Your task to perform on an android device: change notifications settings Image 0: 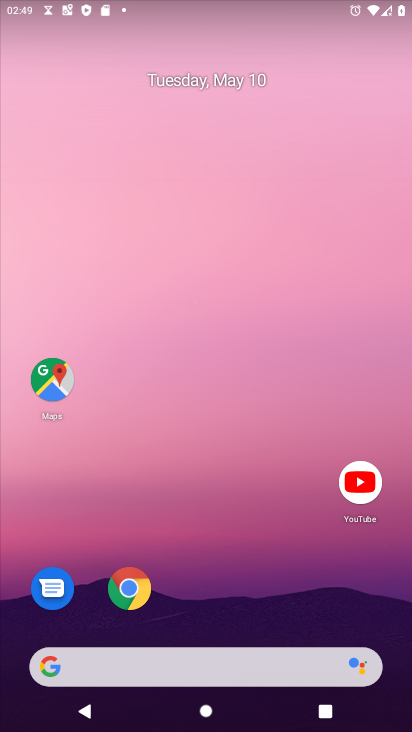
Step 0: drag from (243, 570) to (225, 274)
Your task to perform on an android device: change notifications settings Image 1: 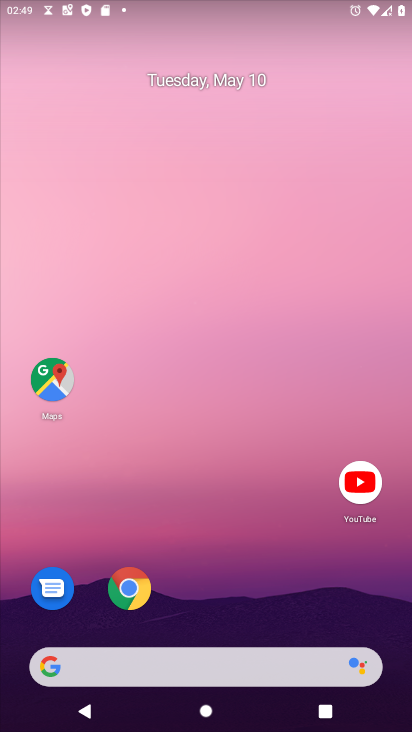
Step 1: drag from (195, 606) to (205, 356)
Your task to perform on an android device: change notifications settings Image 2: 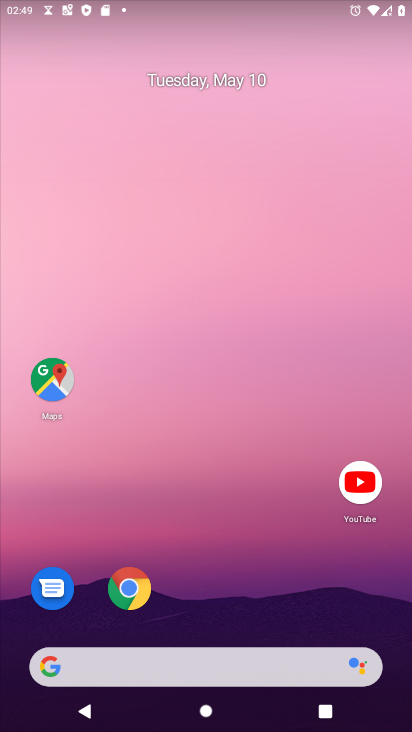
Step 2: drag from (203, 591) to (230, 162)
Your task to perform on an android device: change notifications settings Image 3: 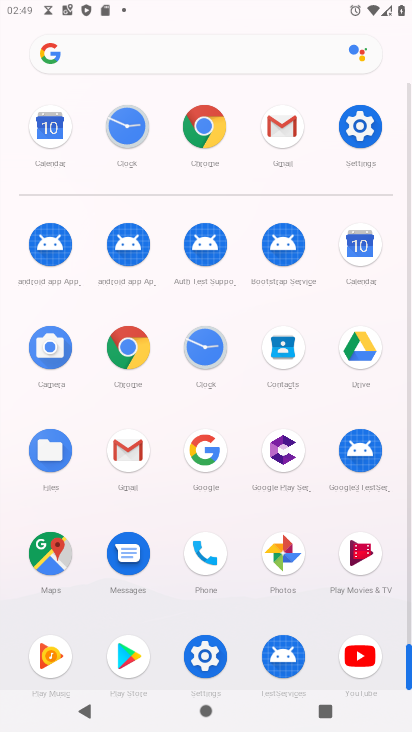
Step 3: click (362, 114)
Your task to perform on an android device: change notifications settings Image 4: 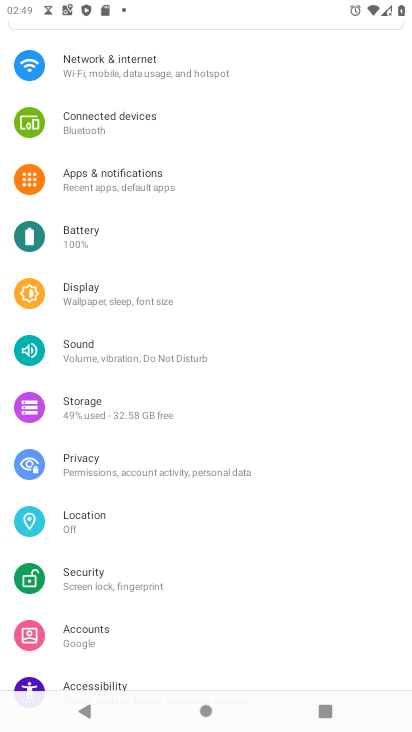
Step 4: click (156, 179)
Your task to perform on an android device: change notifications settings Image 5: 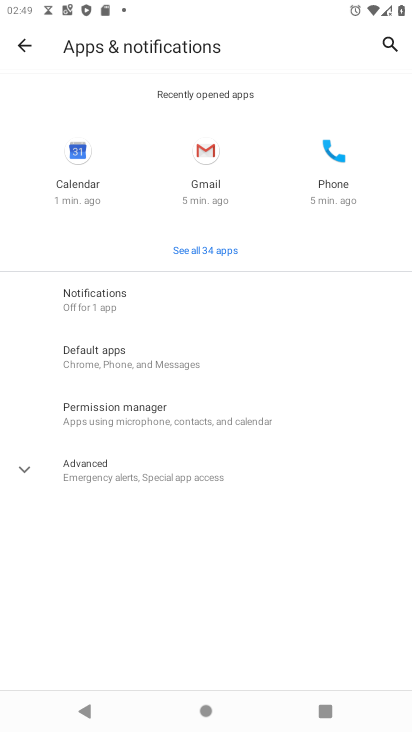
Step 5: click (141, 285)
Your task to perform on an android device: change notifications settings Image 6: 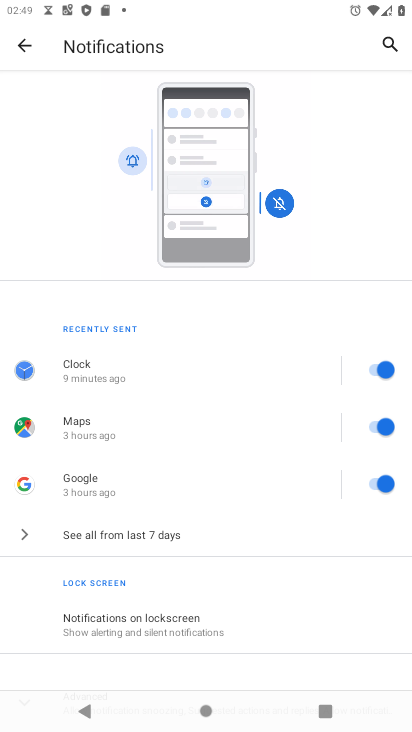
Step 6: click (156, 625)
Your task to perform on an android device: change notifications settings Image 7: 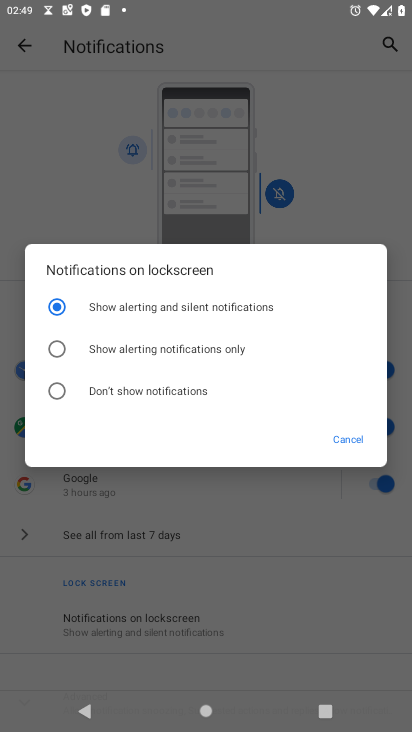
Step 7: click (352, 438)
Your task to perform on an android device: change notifications settings Image 8: 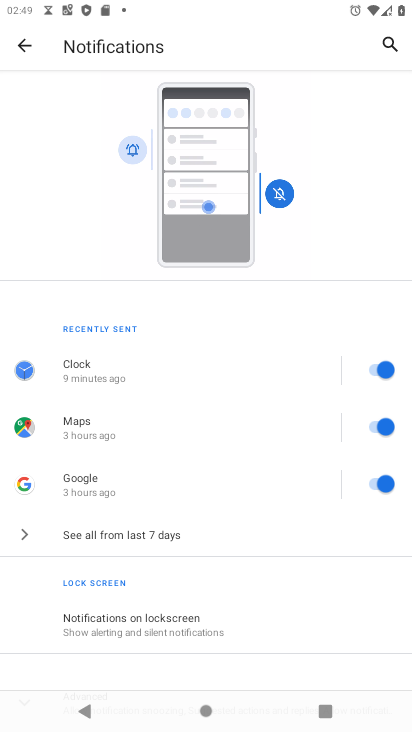
Step 8: click (82, 532)
Your task to perform on an android device: change notifications settings Image 9: 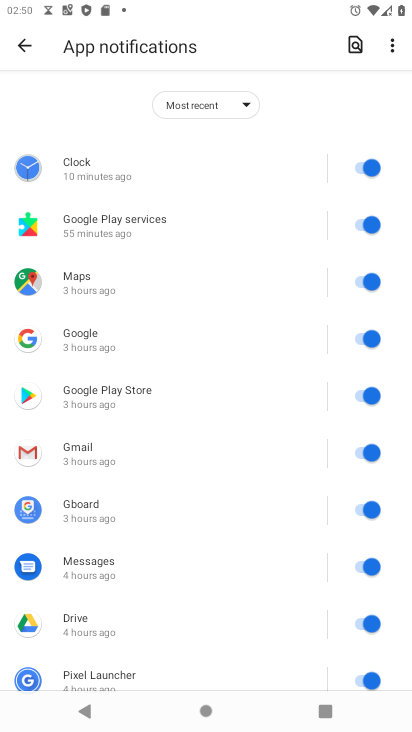
Step 9: click (349, 162)
Your task to perform on an android device: change notifications settings Image 10: 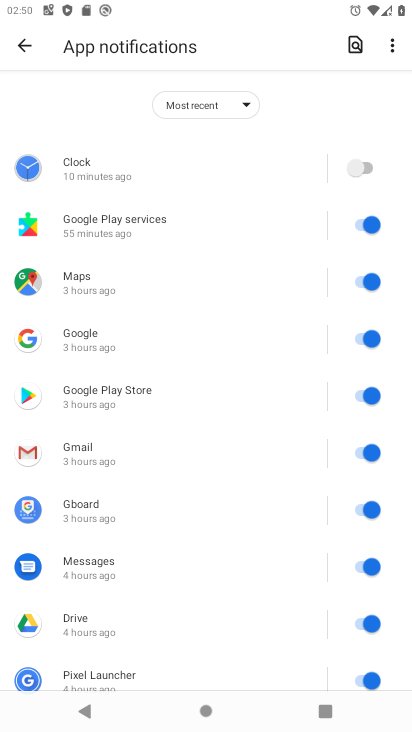
Step 10: click (359, 212)
Your task to perform on an android device: change notifications settings Image 11: 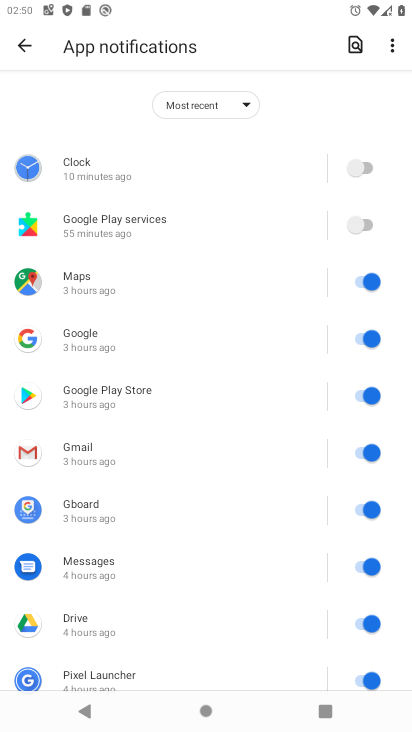
Step 11: click (358, 275)
Your task to perform on an android device: change notifications settings Image 12: 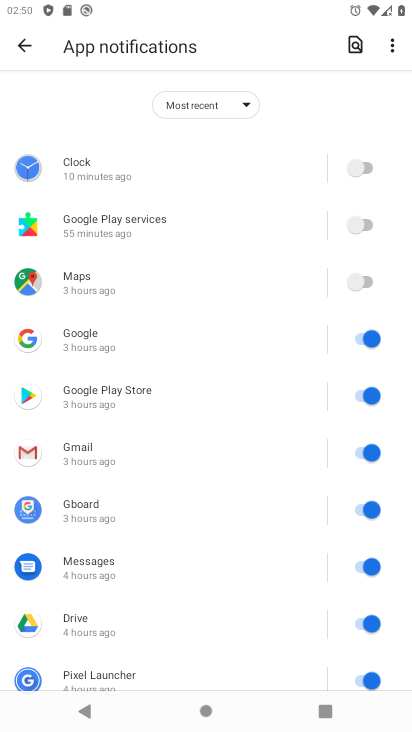
Step 12: click (359, 338)
Your task to perform on an android device: change notifications settings Image 13: 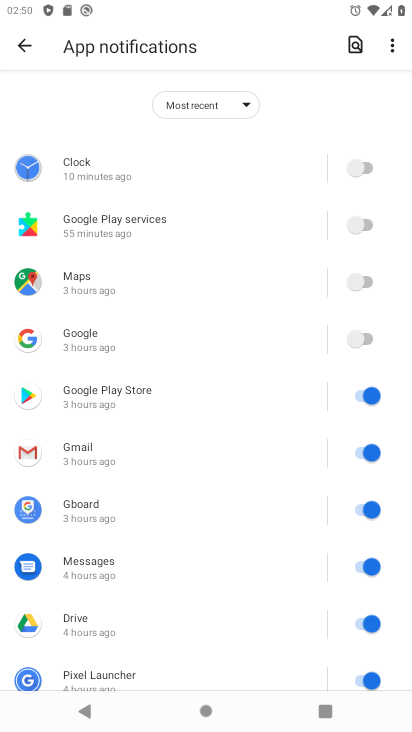
Step 13: click (372, 404)
Your task to perform on an android device: change notifications settings Image 14: 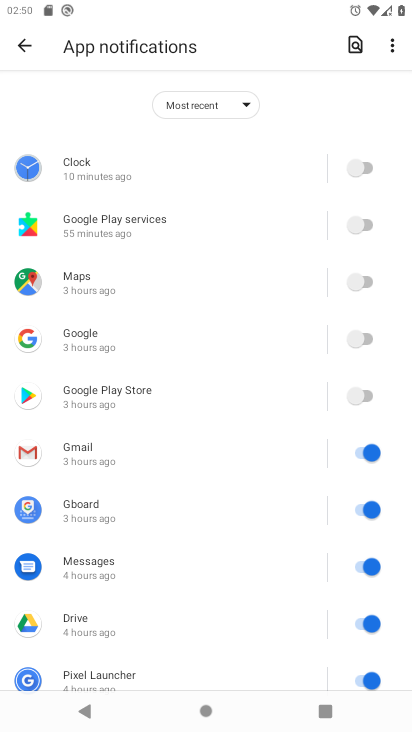
Step 14: click (368, 401)
Your task to perform on an android device: change notifications settings Image 15: 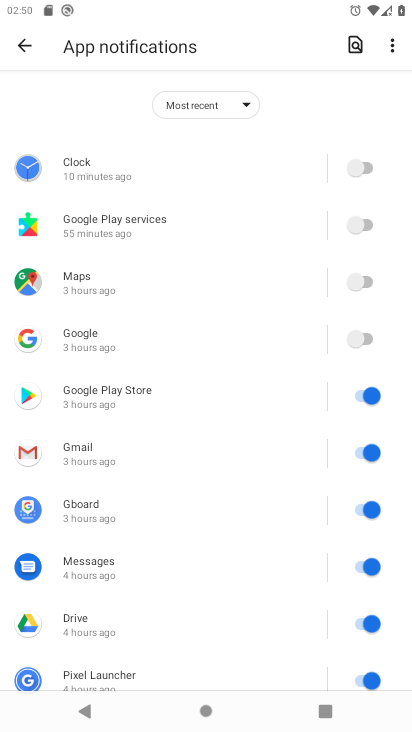
Step 15: click (357, 450)
Your task to perform on an android device: change notifications settings Image 16: 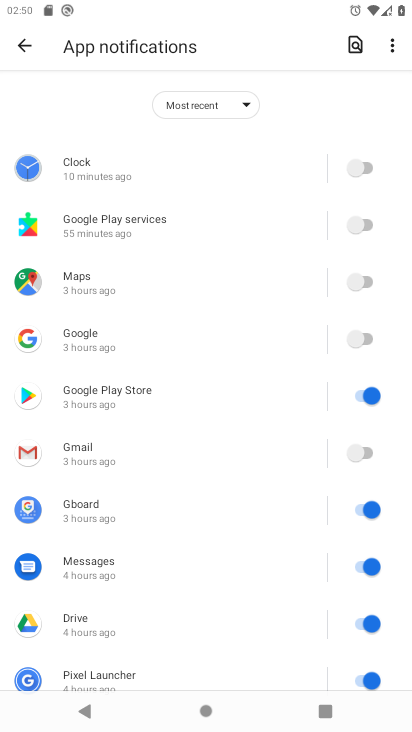
Step 16: click (361, 516)
Your task to perform on an android device: change notifications settings Image 17: 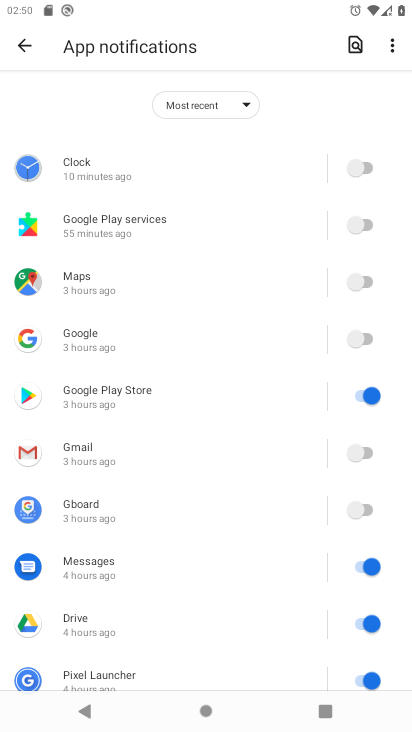
Step 17: click (368, 396)
Your task to perform on an android device: change notifications settings Image 18: 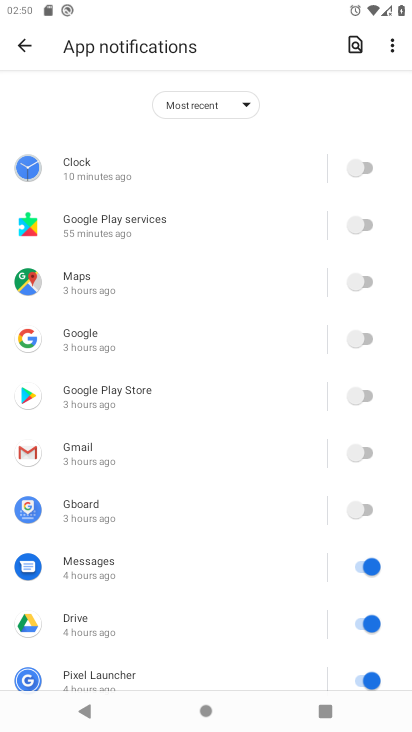
Step 18: click (354, 572)
Your task to perform on an android device: change notifications settings Image 19: 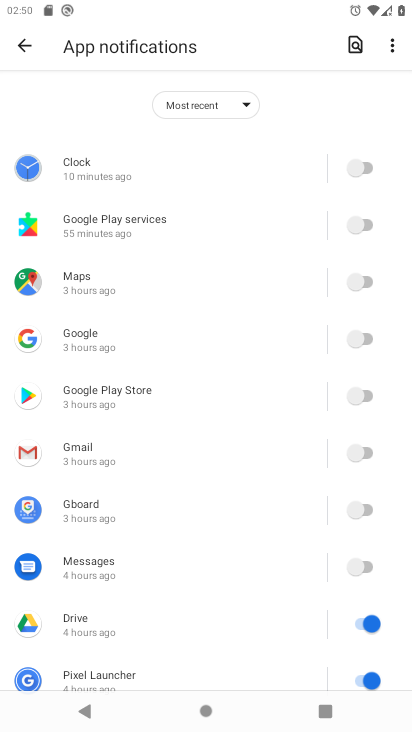
Step 19: drag from (252, 452) to (268, 91)
Your task to perform on an android device: change notifications settings Image 20: 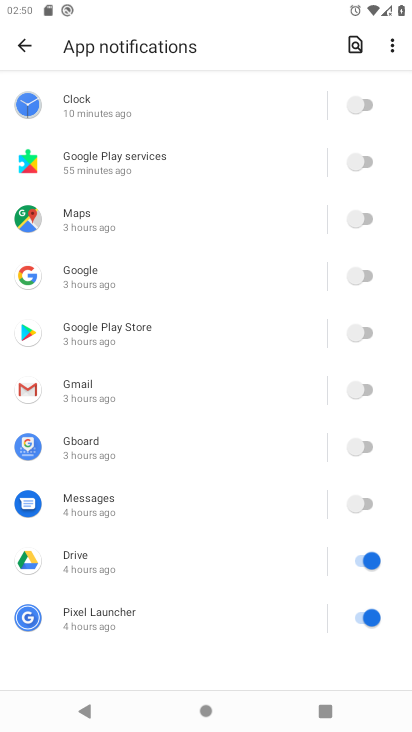
Step 20: click (351, 558)
Your task to perform on an android device: change notifications settings Image 21: 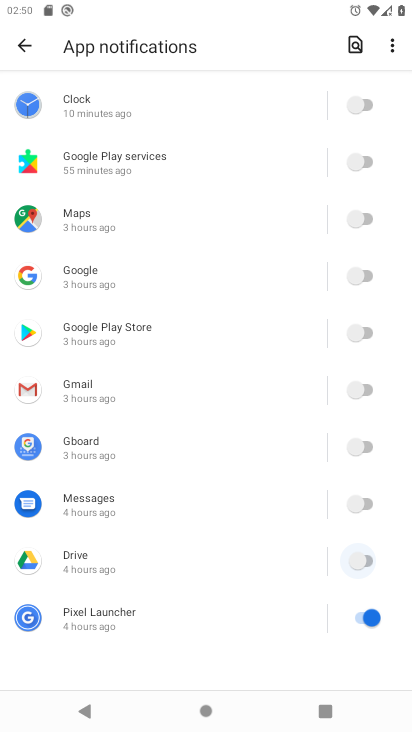
Step 21: click (363, 618)
Your task to perform on an android device: change notifications settings Image 22: 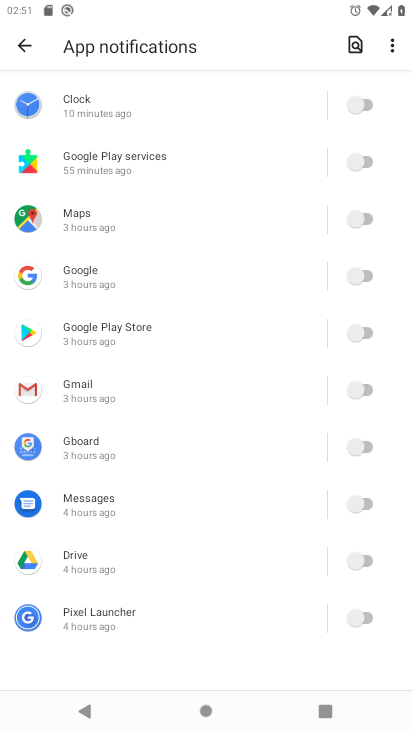
Step 22: task complete